Your task to perform on an android device: Show me the alarms in the clock app Image 0: 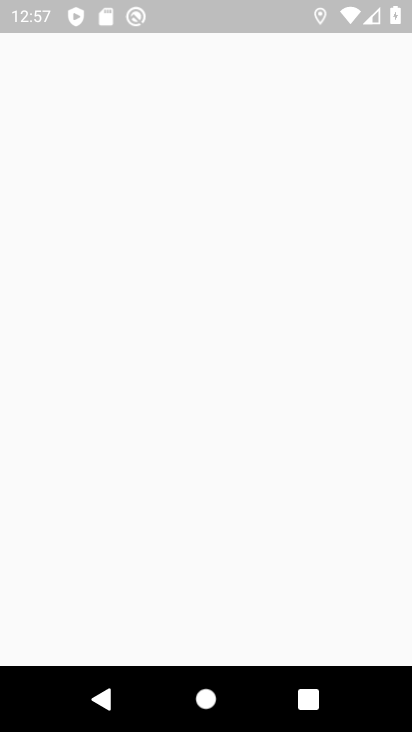
Step 0: drag from (296, 552) to (295, 363)
Your task to perform on an android device: Show me the alarms in the clock app Image 1: 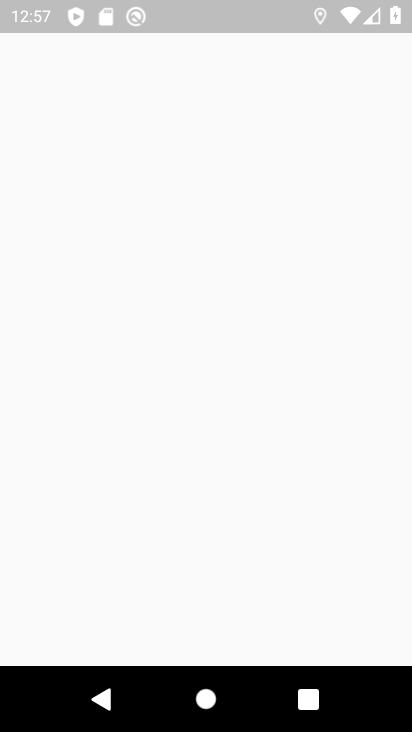
Step 1: press home button
Your task to perform on an android device: Show me the alarms in the clock app Image 2: 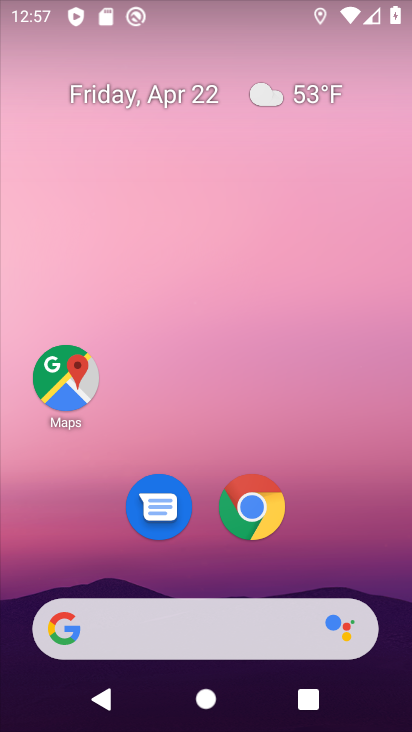
Step 2: drag from (318, 435) to (295, 183)
Your task to perform on an android device: Show me the alarms in the clock app Image 3: 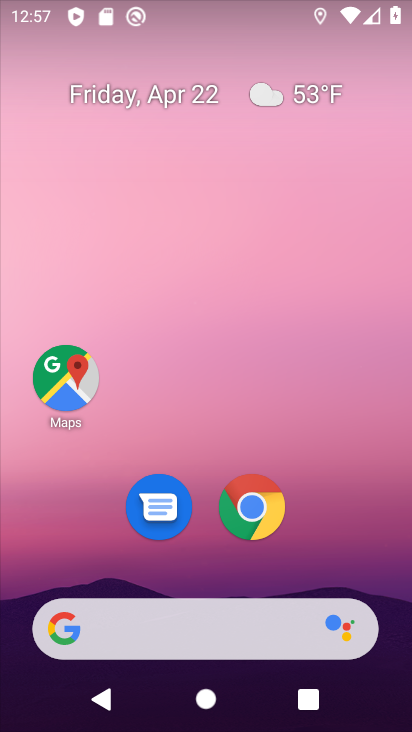
Step 3: drag from (329, 550) to (303, 146)
Your task to perform on an android device: Show me the alarms in the clock app Image 4: 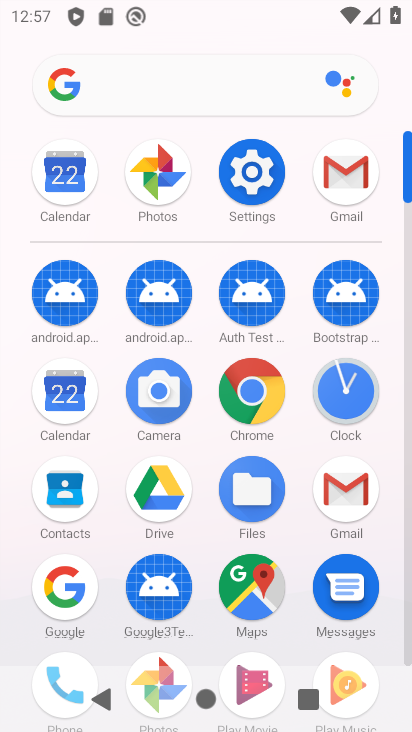
Step 4: click (343, 404)
Your task to perform on an android device: Show me the alarms in the clock app Image 5: 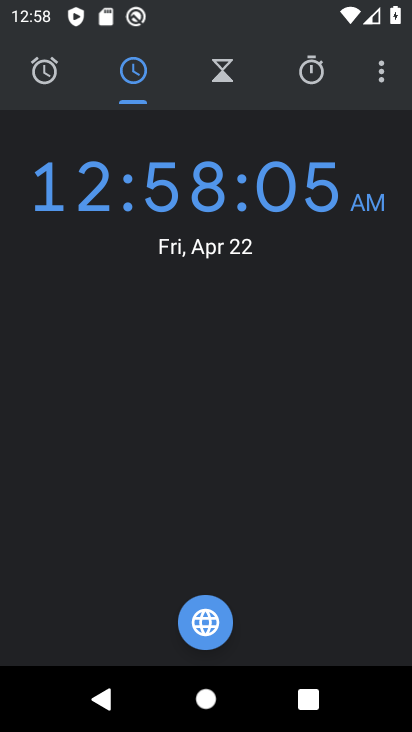
Step 5: click (36, 79)
Your task to perform on an android device: Show me the alarms in the clock app Image 6: 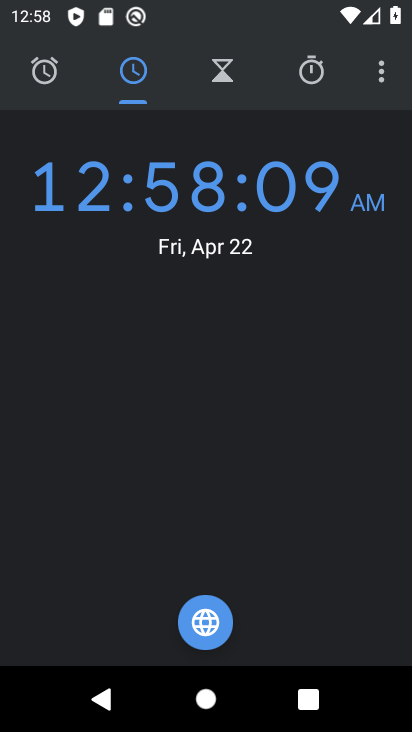
Step 6: click (48, 86)
Your task to perform on an android device: Show me the alarms in the clock app Image 7: 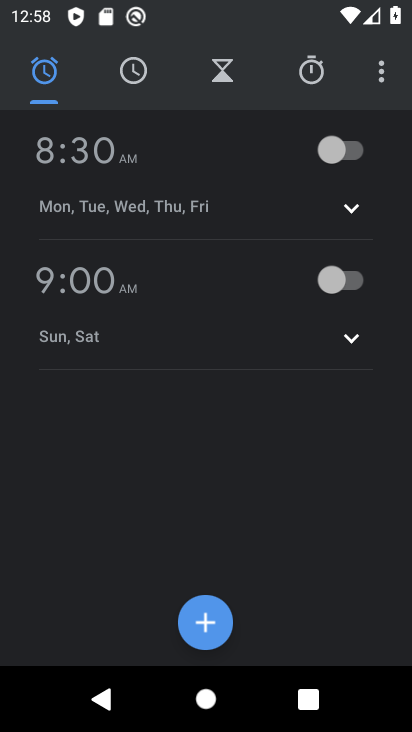
Step 7: task complete